Your task to perform on an android device: turn notification dots on Image 0: 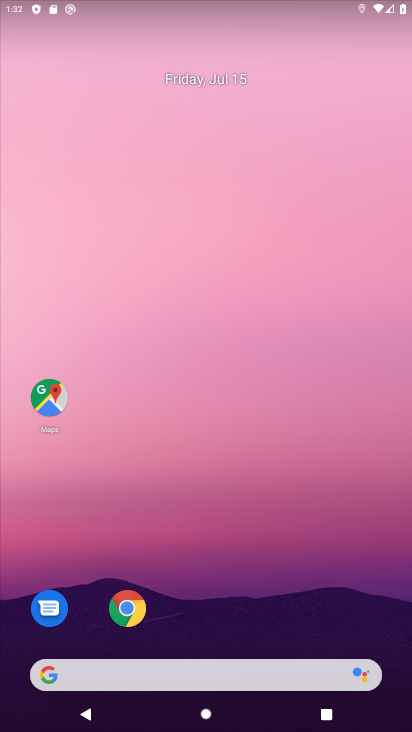
Step 0: drag from (202, 667) to (218, 8)
Your task to perform on an android device: turn notification dots on Image 1: 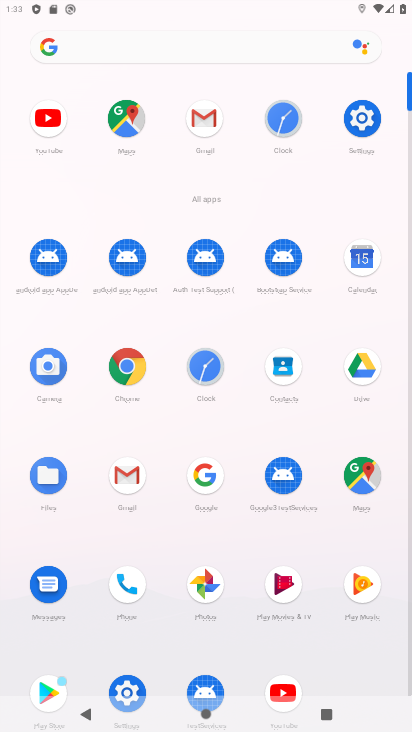
Step 1: click (365, 139)
Your task to perform on an android device: turn notification dots on Image 2: 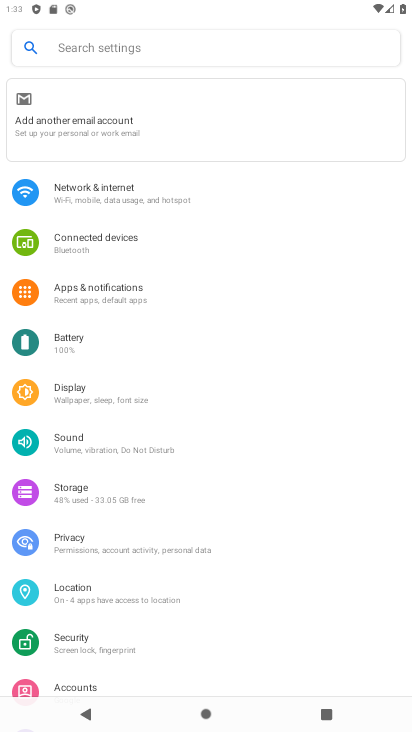
Step 2: click (129, 284)
Your task to perform on an android device: turn notification dots on Image 3: 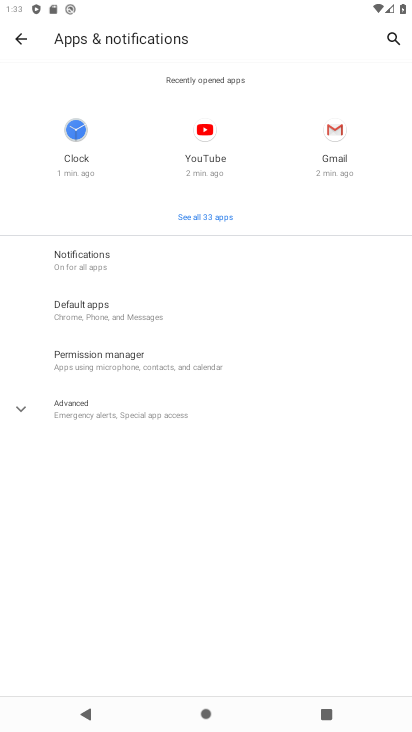
Step 3: click (98, 271)
Your task to perform on an android device: turn notification dots on Image 4: 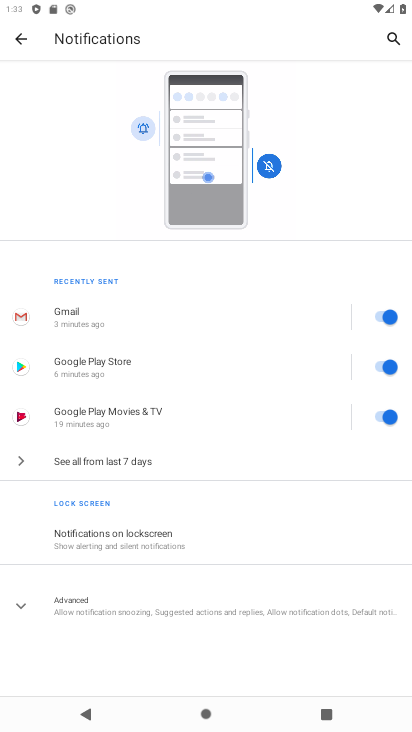
Step 4: click (173, 604)
Your task to perform on an android device: turn notification dots on Image 5: 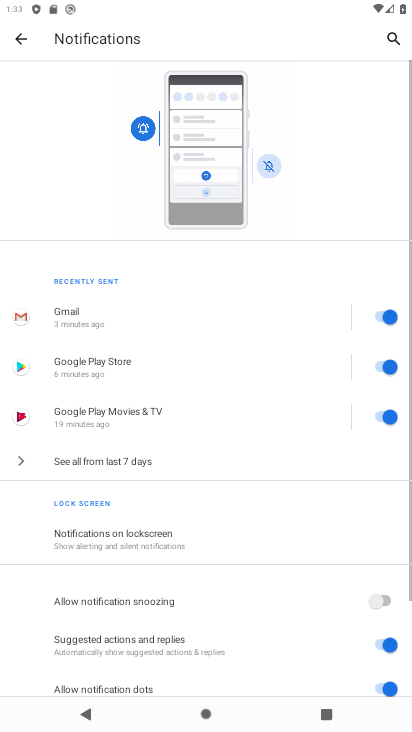
Step 5: task complete